Your task to perform on an android device: turn on wifi Image 0: 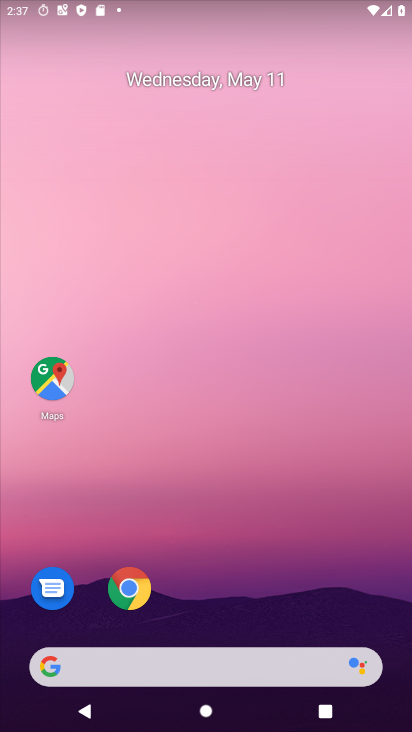
Step 0: drag from (145, 9) to (143, 361)
Your task to perform on an android device: turn on wifi Image 1: 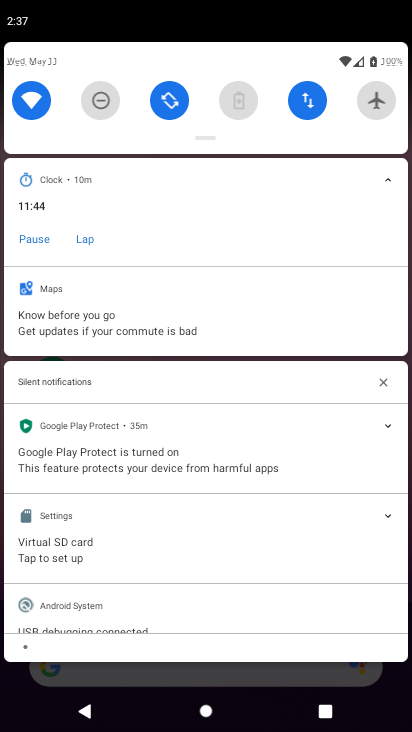
Step 1: click (31, 108)
Your task to perform on an android device: turn on wifi Image 2: 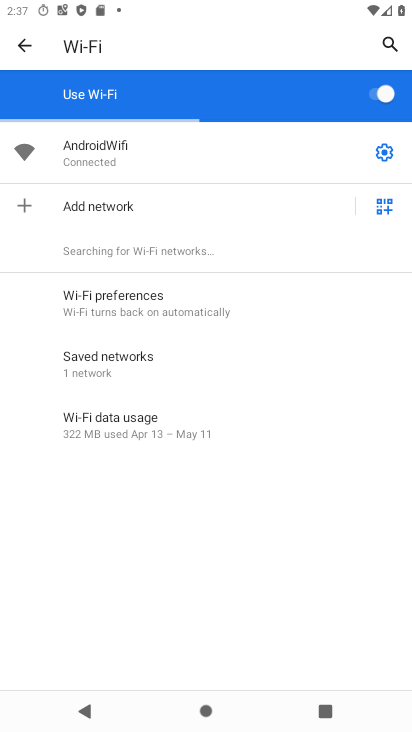
Step 2: task complete